Your task to perform on an android device: Go to Yahoo.com Image 0: 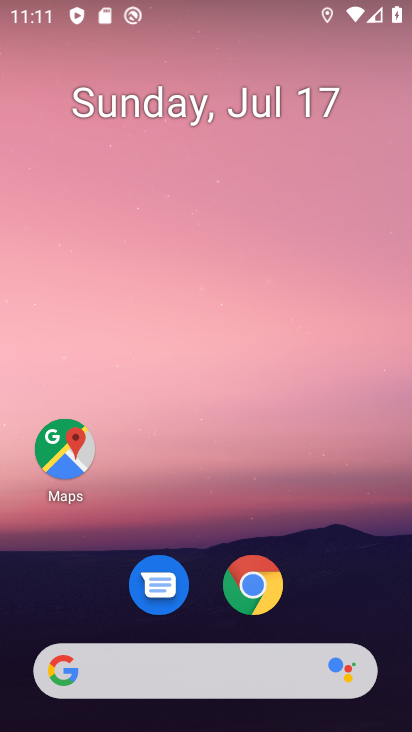
Step 0: drag from (265, 453) to (213, 5)
Your task to perform on an android device: Go to Yahoo.com Image 1: 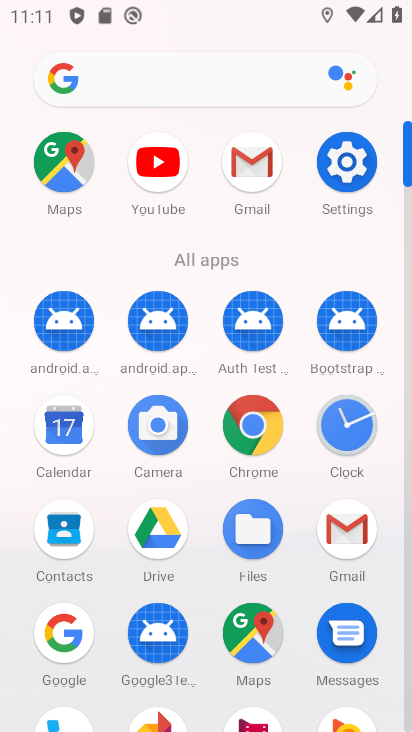
Step 1: press back button
Your task to perform on an android device: Go to Yahoo.com Image 2: 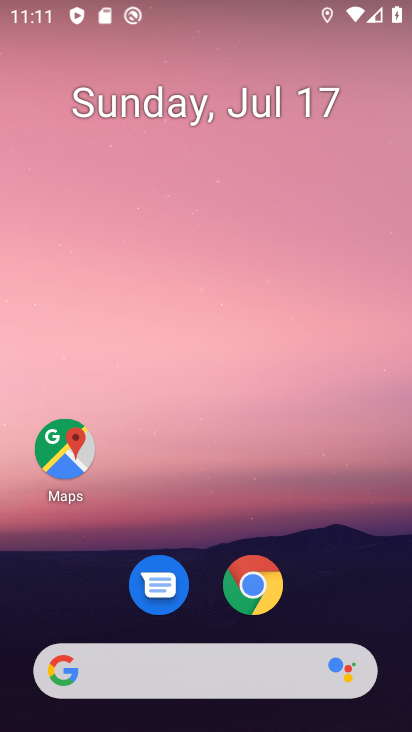
Step 2: click (238, 682)
Your task to perform on an android device: Go to Yahoo.com Image 3: 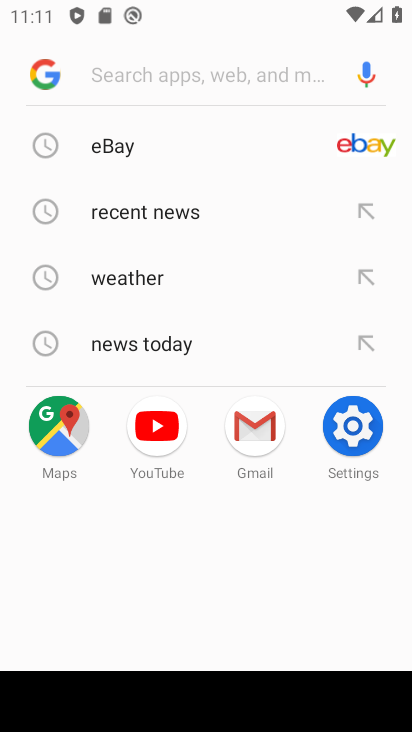
Step 3: type "yahoo.com"
Your task to perform on an android device: Go to Yahoo.com Image 4: 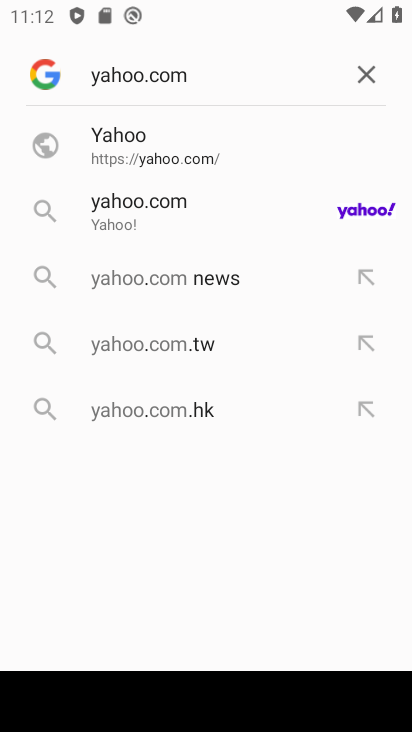
Step 4: click (362, 207)
Your task to perform on an android device: Go to Yahoo.com Image 5: 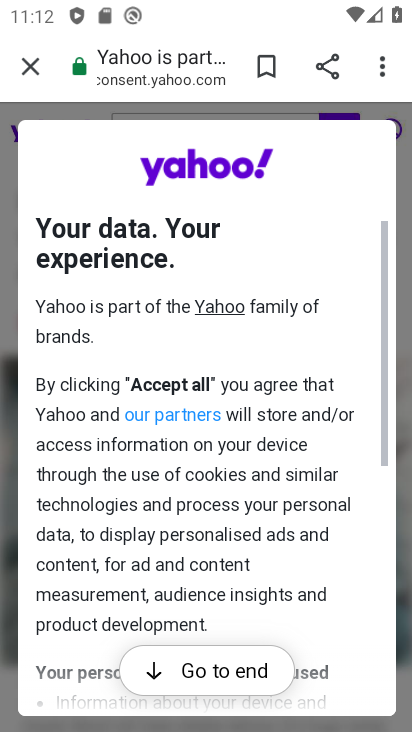
Step 5: click (255, 661)
Your task to perform on an android device: Go to Yahoo.com Image 6: 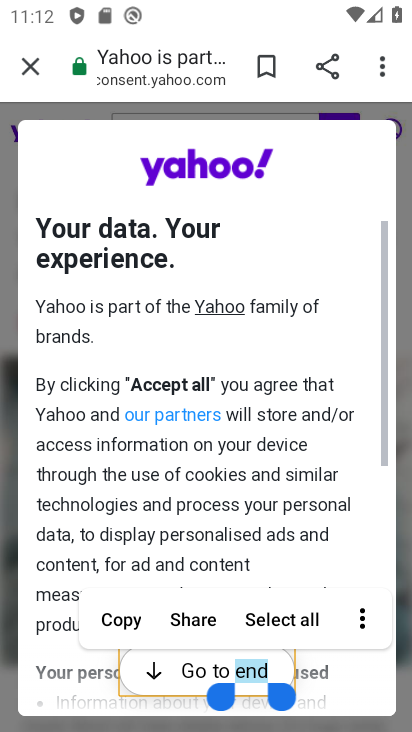
Step 6: click (176, 677)
Your task to perform on an android device: Go to Yahoo.com Image 7: 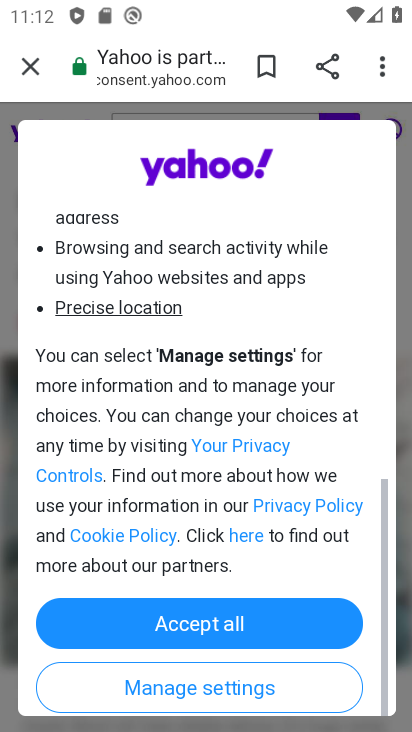
Step 7: click (216, 624)
Your task to perform on an android device: Go to Yahoo.com Image 8: 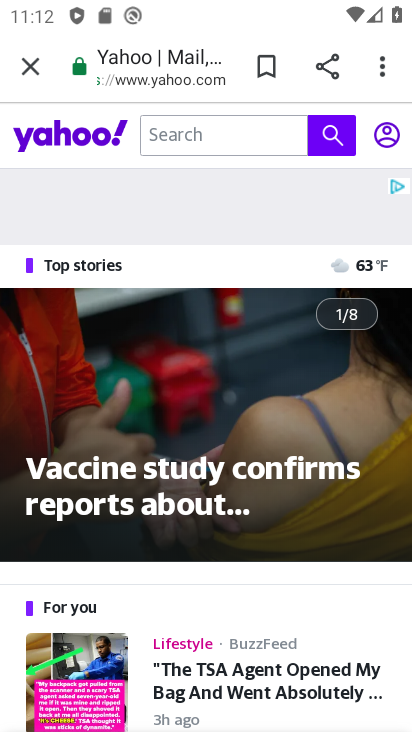
Step 8: drag from (224, 495) to (276, 66)
Your task to perform on an android device: Go to Yahoo.com Image 9: 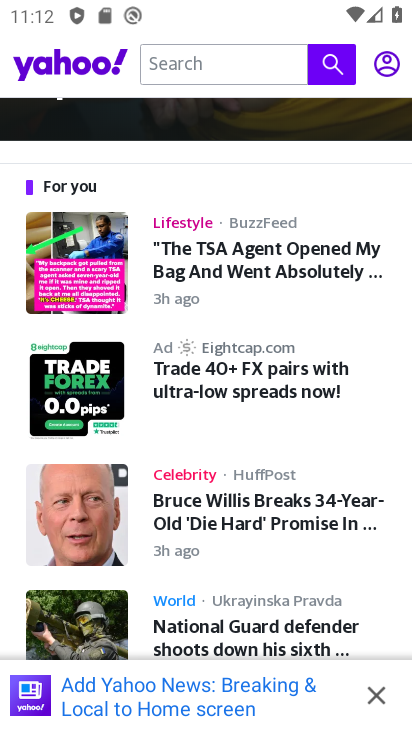
Step 9: drag from (261, 576) to (267, 308)
Your task to perform on an android device: Go to Yahoo.com Image 10: 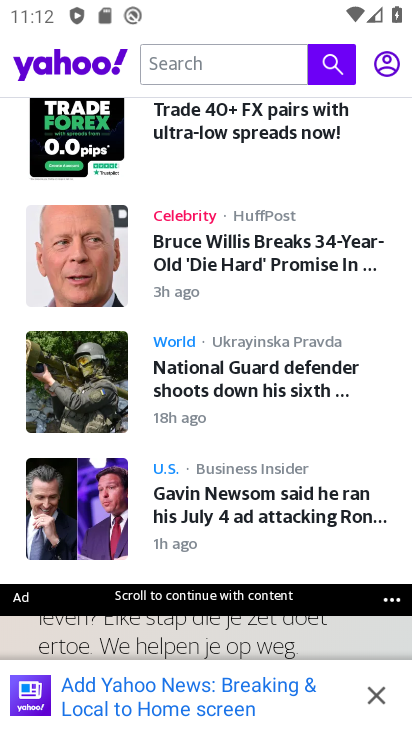
Step 10: click (284, 376)
Your task to perform on an android device: Go to Yahoo.com Image 11: 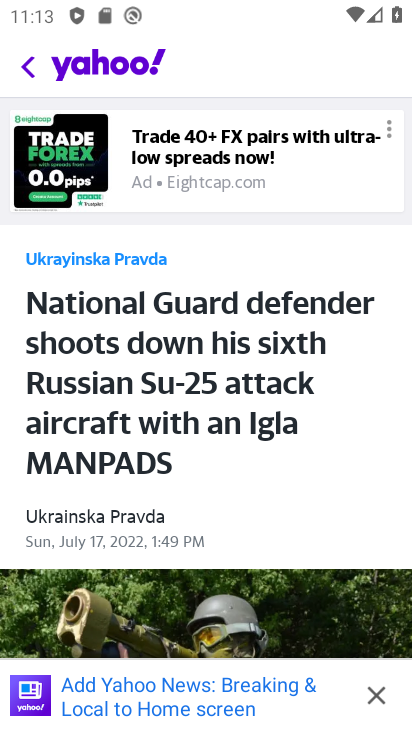
Step 11: task complete